Your task to perform on an android device: remove spam from my inbox in the gmail app Image 0: 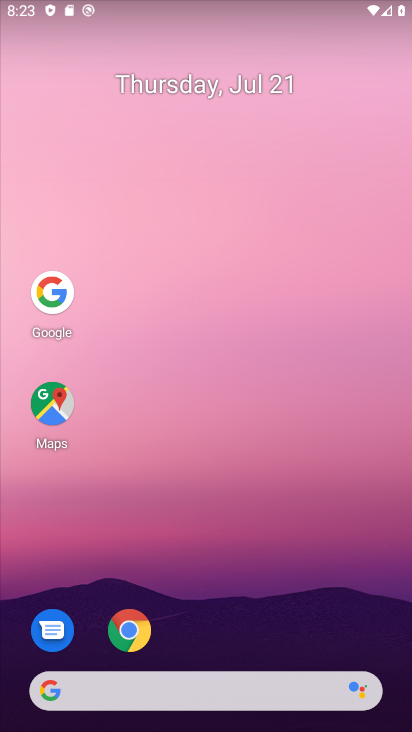
Step 0: drag from (213, 648) to (218, 224)
Your task to perform on an android device: remove spam from my inbox in the gmail app Image 1: 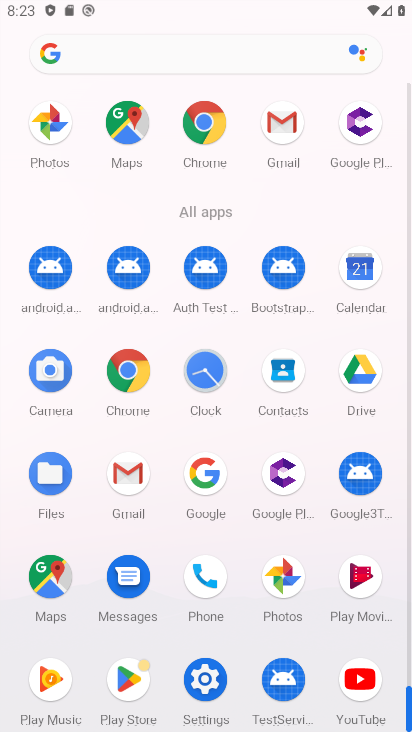
Step 1: drag from (266, 129) to (104, 176)
Your task to perform on an android device: remove spam from my inbox in the gmail app Image 2: 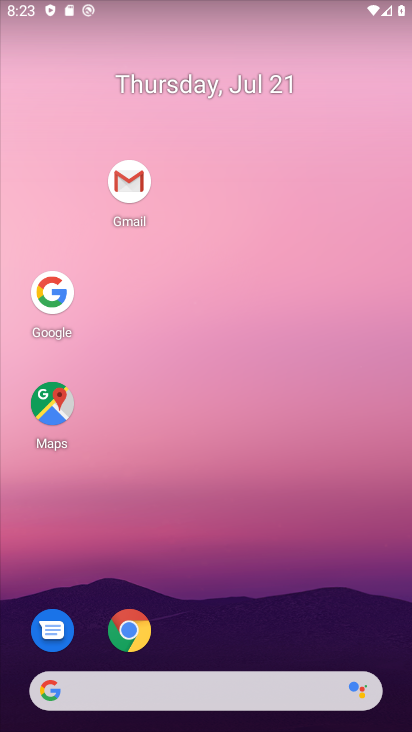
Step 2: click (120, 191)
Your task to perform on an android device: remove spam from my inbox in the gmail app Image 3: 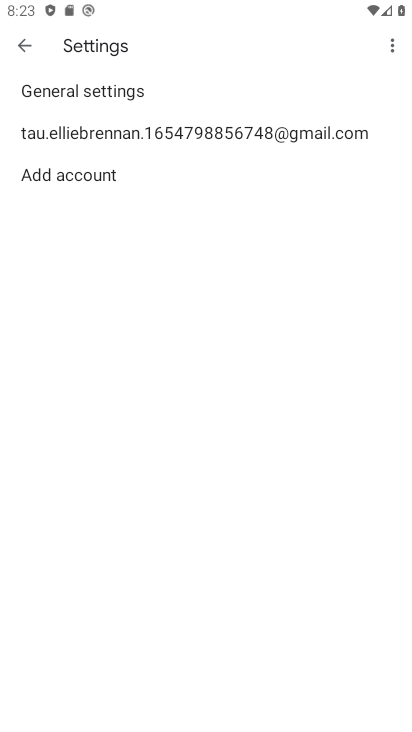
Step 3: click (23, 40)
Your task to perform on an android device: remove spam from my inbox in the gmail app Image 4: 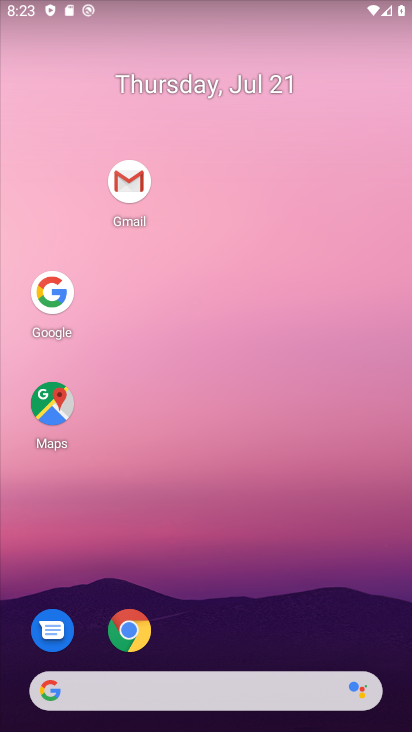
Step 4: click (131, 202)
Your task to perform on an android device: remove spam from my inbox in the gmail app Image 5: 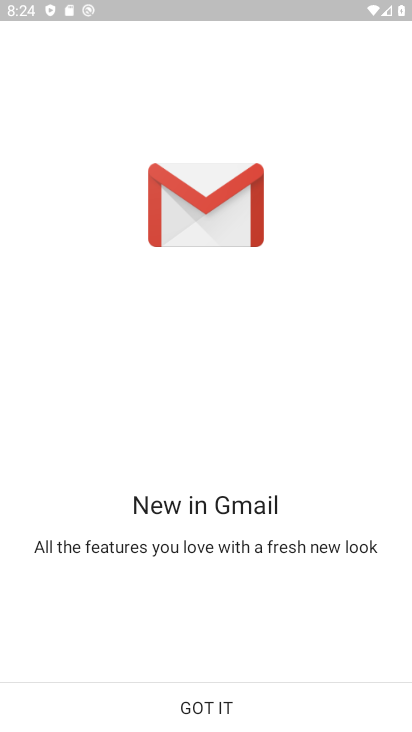
Step 5: click (210, 700)
Your task to perform on an android device: remove spam from my inbox in the gmail app Image 6: 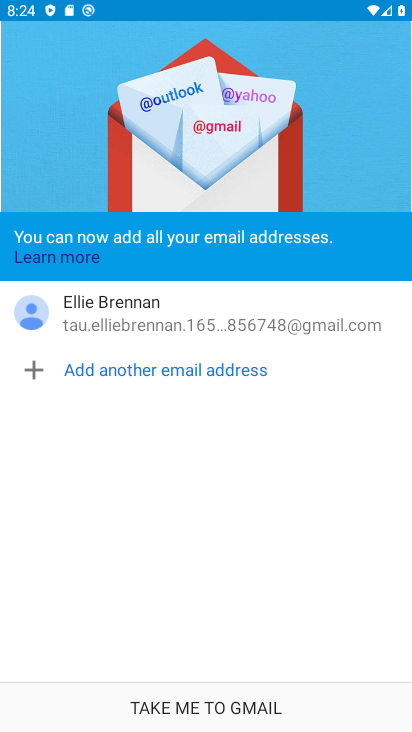
Step 6: click (225, 694)
Your task to perform on an android device: remove spam from my inbox in the gmail app Image 7: 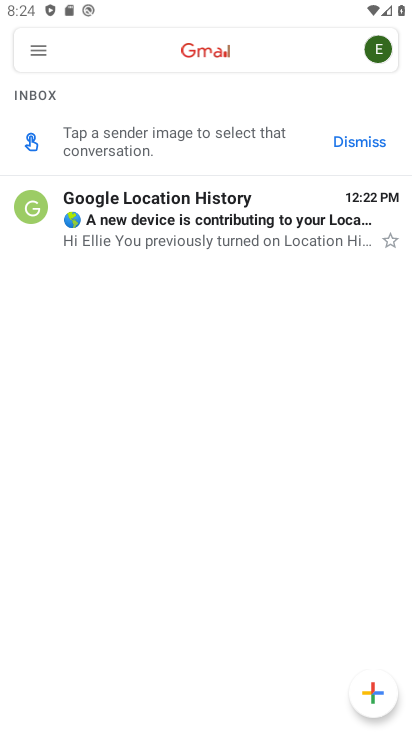
Step 7: click (48, 40)
Your task to perform on an android device: remove spam from my inbox in the gmail app Image 8: 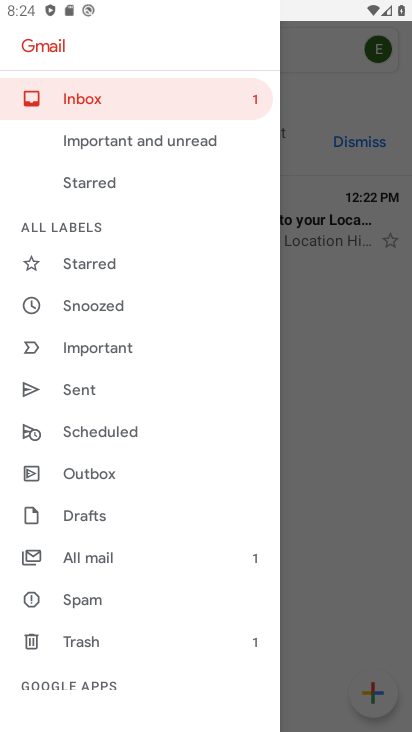
Step 8: click (81, 593)
Your task to perform on an android device: remove spam from my inbox in the gmail app Image 9: 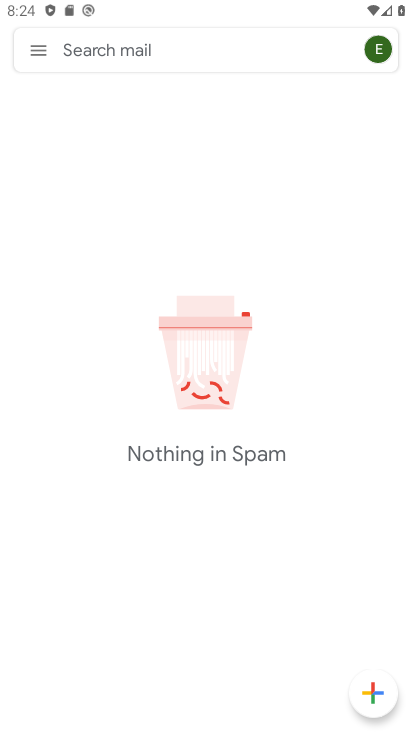
Step 9: task complete